Your task to perform on an android device: change text size in settings app Image 0: 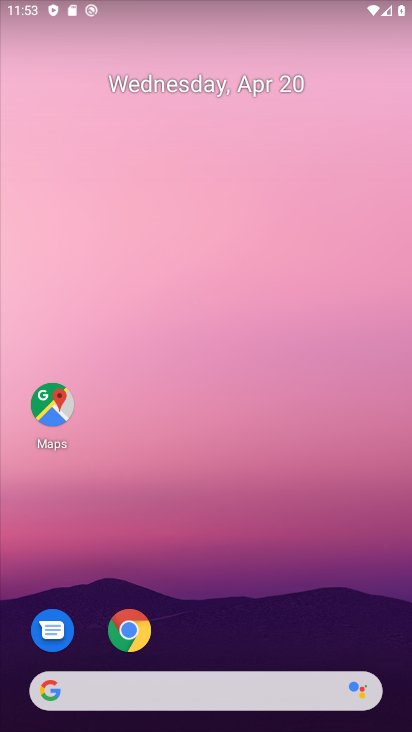
Step 0: drag from (227, 593) to (402, 216)
Your task to perform on an android device: change text size in settings app Image 1: 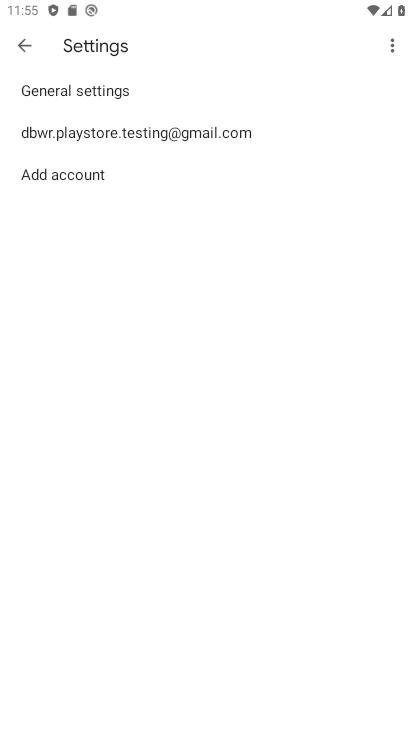
Step 1: press back button
Your task to perform on an android device: change text size in settings app Image 2: 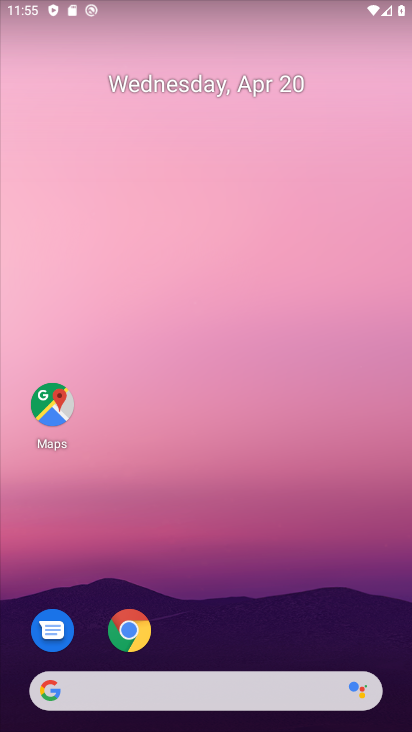
Step 2: drag from (241, 588) to (323, 66)
Your task to perform on an android device: change text size in settings app Image 3: 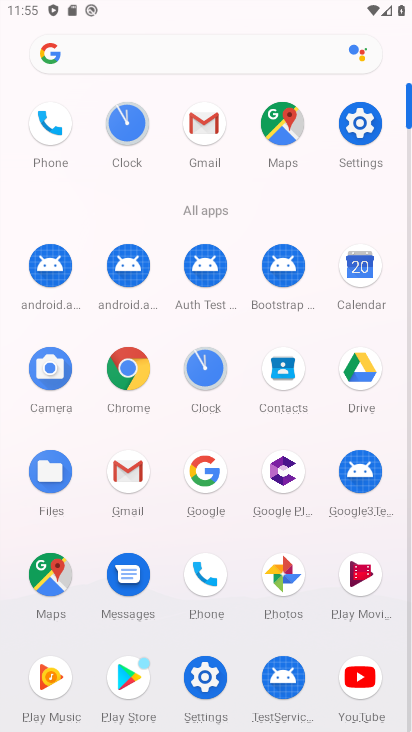
Step 3: click (340, 139)
Your task to perform on an android device: change text size in settings app Image 4: 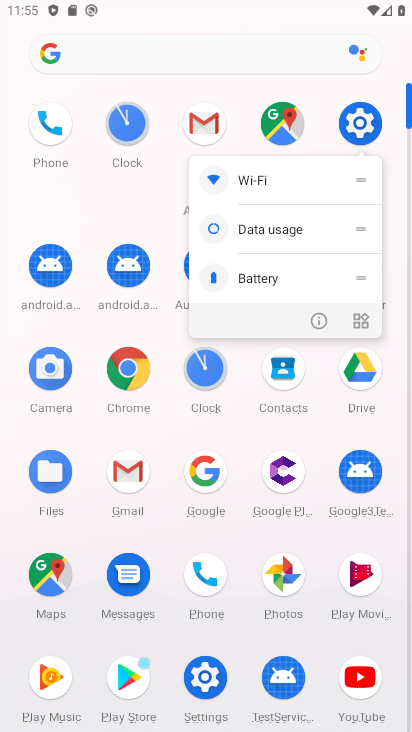
Step 4: click (352, 129)
Your task to perform on an android device: change text size in settings app Image 5: 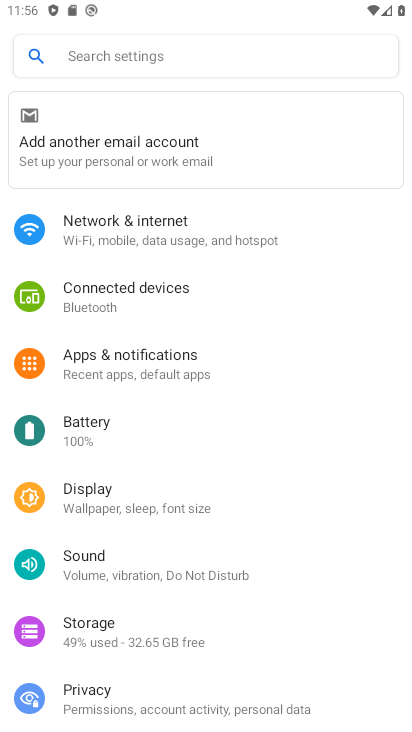
Step 5: drag from (176, 520) to (240, 211)
Your task to perform on an android device: change text size in settings app Image 6: 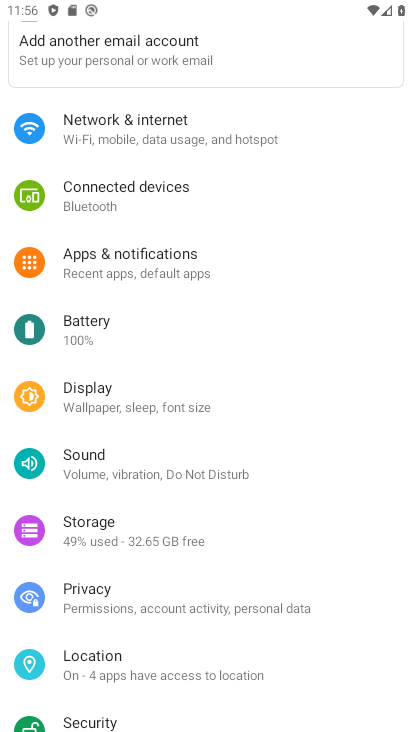
Step 6: click (183, 406)
Your task to perform on an android device: change text size in settings app Image 7: 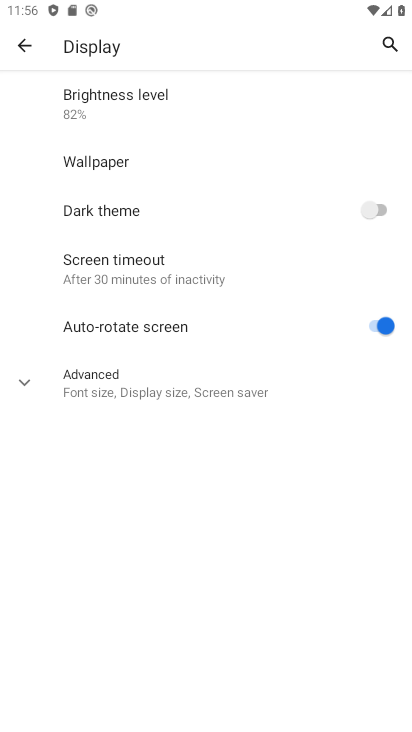
Step 7: click (142, 276)
Your task to perform on an android device: change text size in settings app Image 8: 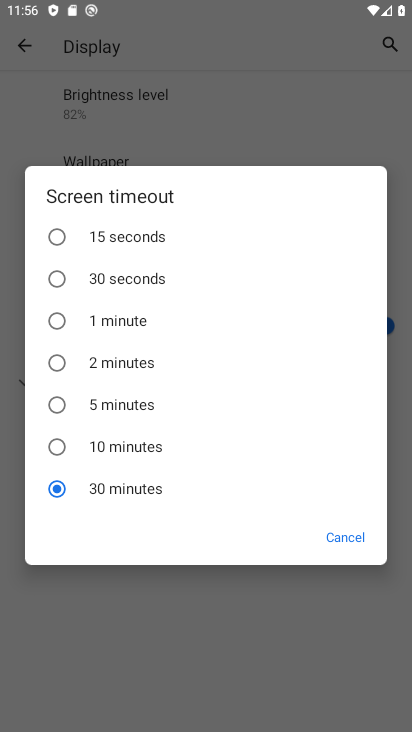
Step 8: click (50, 364)
Your task to perform on an android device: change text size in settings app Image 9: 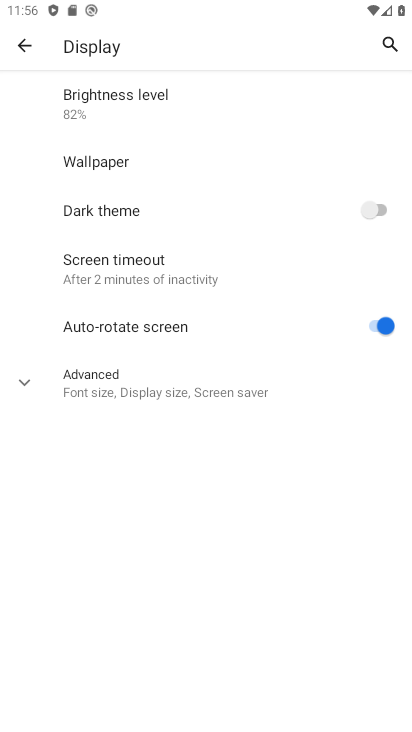
Step 9: task complete